Your task to perform on an android device: Open Android settings Image 0: 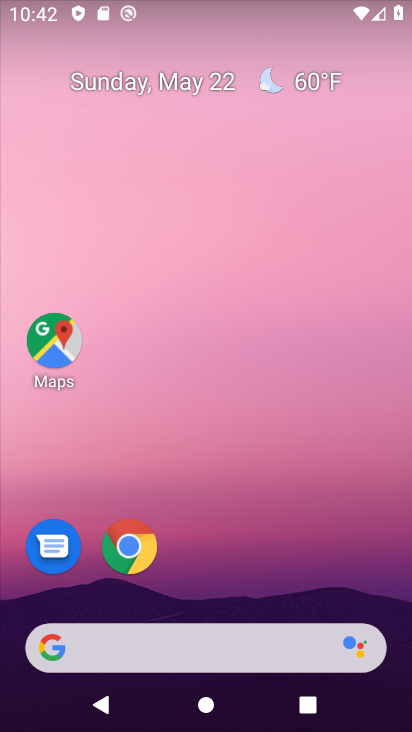
Step 0: drag from (234, 721) to (229, 225)
Your task to perform on an android device: Open Android settings Image 1: 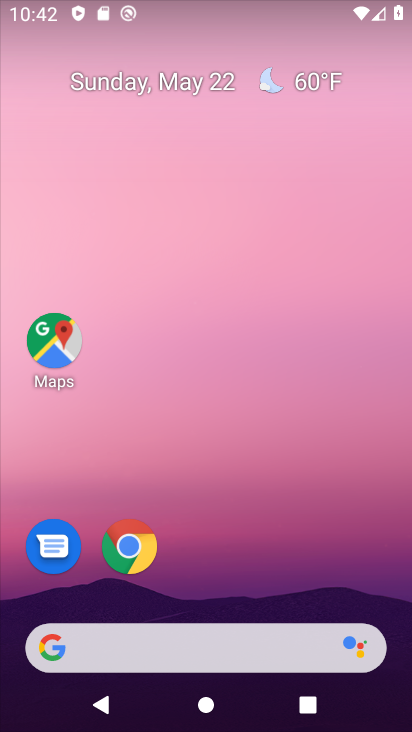
Step 1: drag from (230, 725) to (231, 173)
Your task to perform on an android device: Open Android settings Image 2: 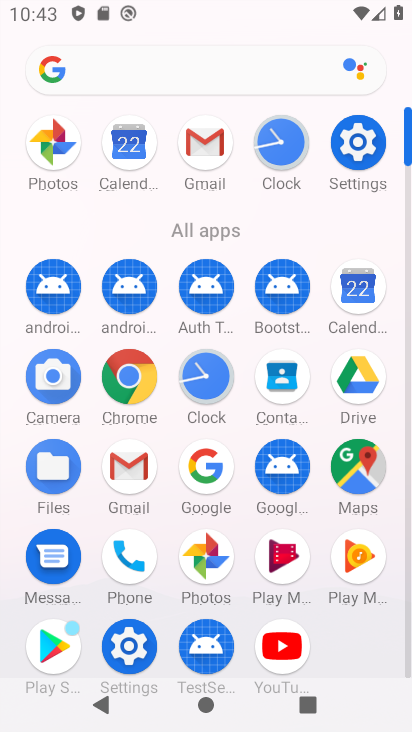
Step 2: click (354, 137)
Your task to perform on an android device: Open Android settings Image 3: 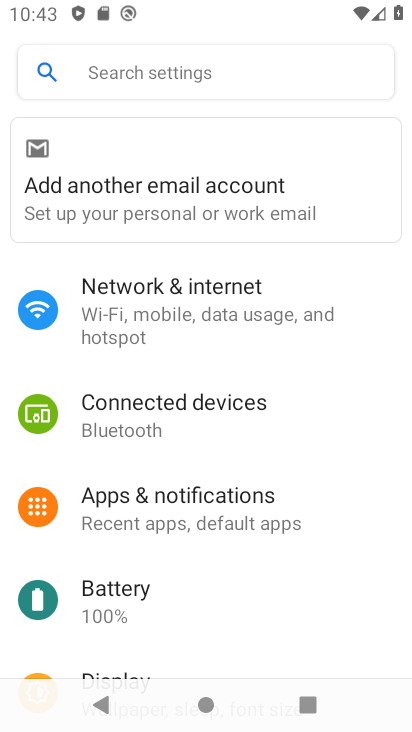
Step 3: task complete